Your task to perform on an android device: Open Amazon Image 0: 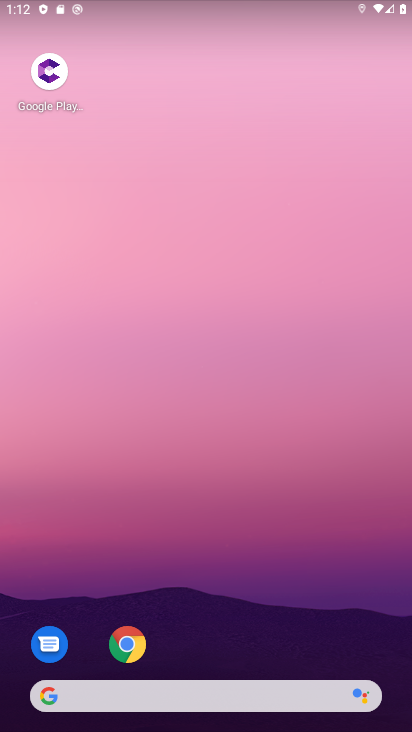
Step 0: click (129, 635)
Your task to perform on an android device: Open Amazon Image 1: 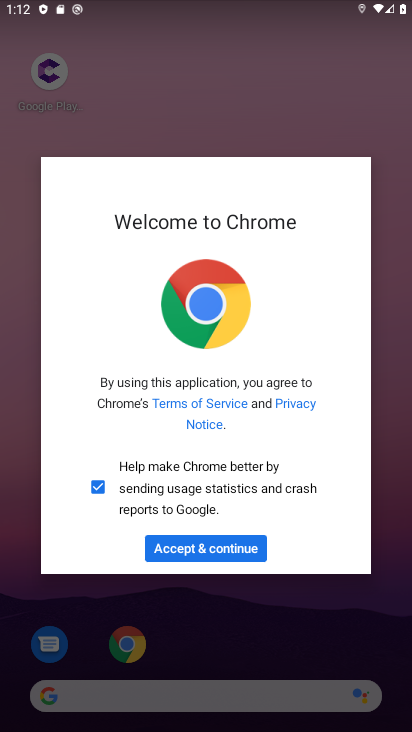
Step 1: click (240, 539)
Your task to perform on an android device: Open Amazon Image 2: 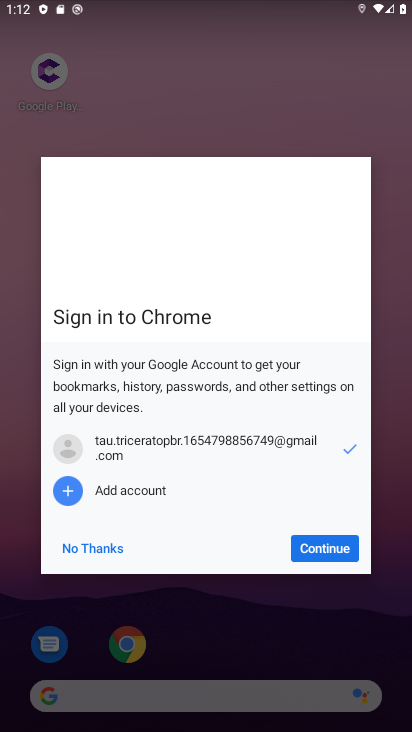
Step 2: click (302, 557)
Your task to perform on an android device: Open Amazon Image 3: 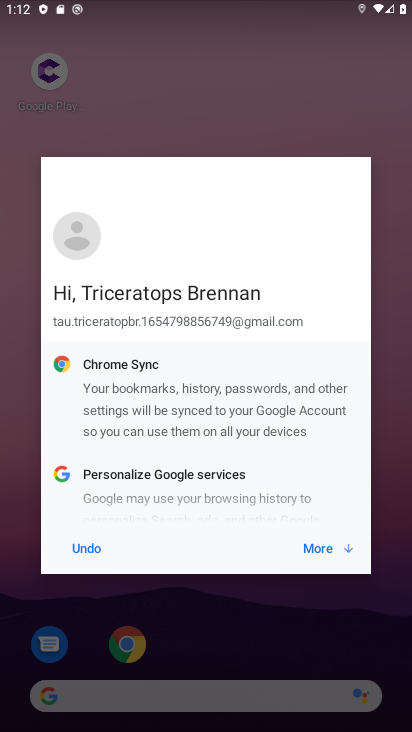
Step 3: click (312, 551)
Your task to perform on an android device: Open Amazon Image 4: 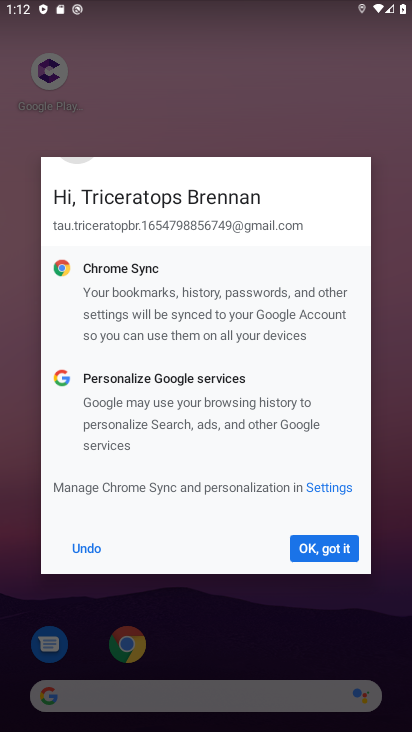
Step 4: click (311, 551)
Your task to perform on an android device: Open Amazon Image 5: 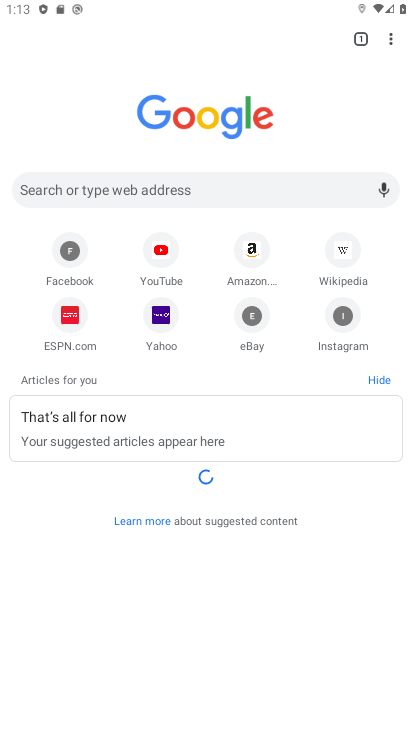
Step 5: click (253, 251)
Your task to perform on an android device: Open Amazon Image 6: 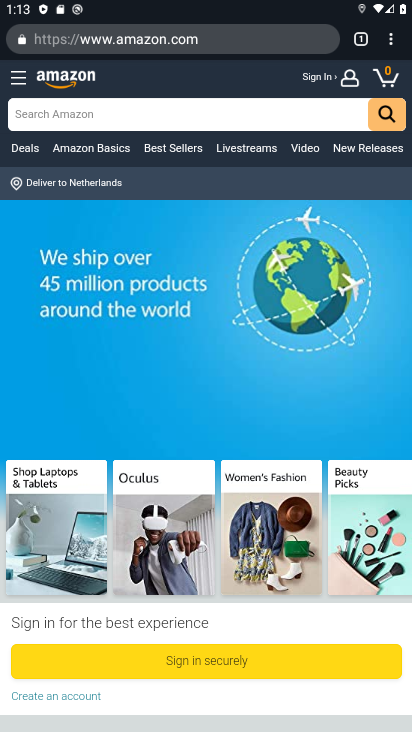
Step 6: task complete